Your task to perform on an android device: turn off location history Image 0: 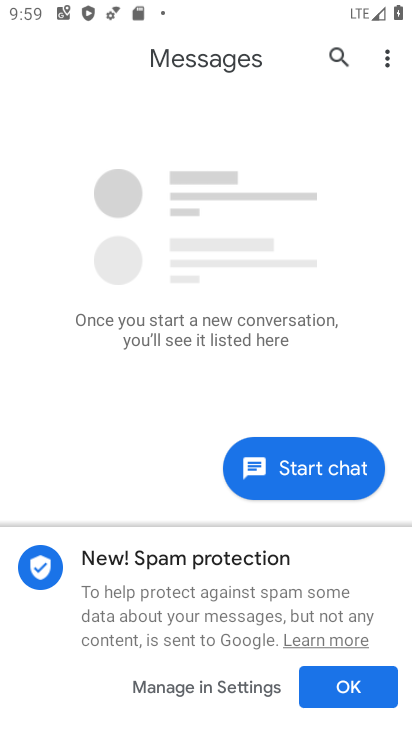
Step 0: press home button
Your task to perform on an android device: turn off location history Image 1: 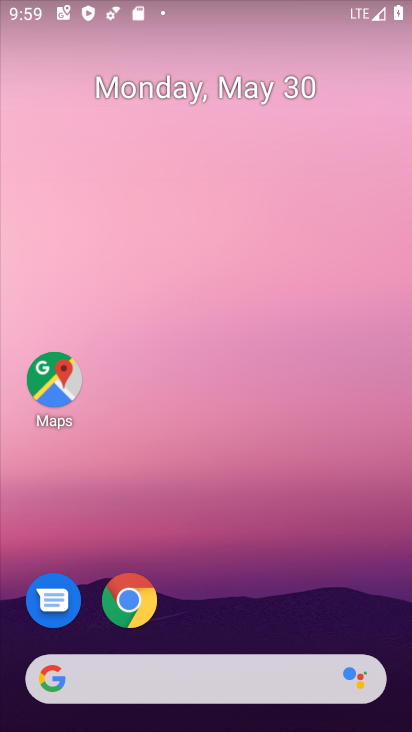
Step 1: drag from (248, 589) to (242, 483)
Your task to perform on an android device: turn off location history Image 2: 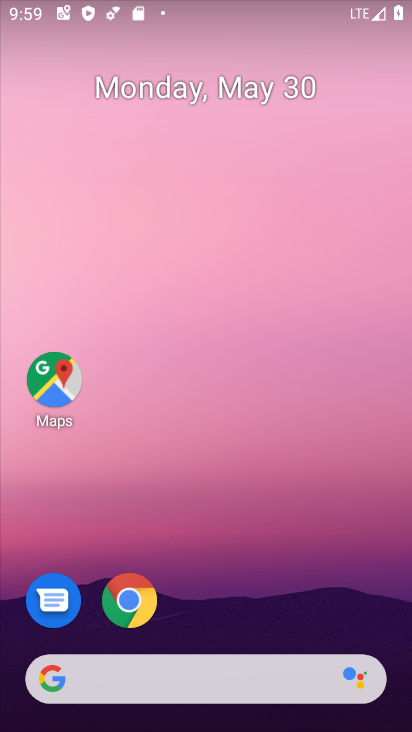
Step 2: drag from (294, 605) to (309, 131)
Your task to perform on an android device: turn off location history Image 3: 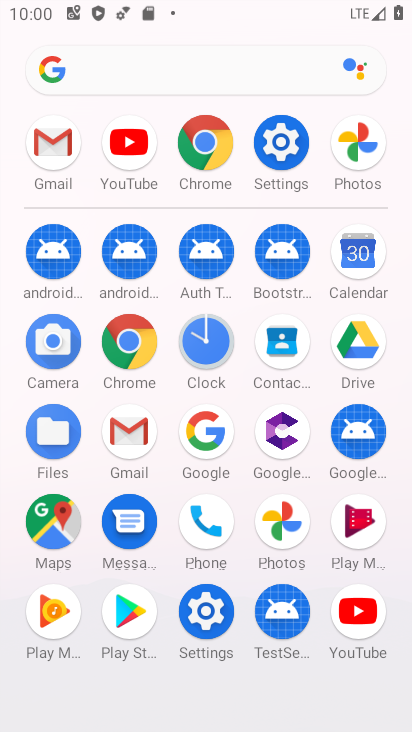
Step 3: click (290, 137)
Your task to perform on an android device: turn off location history Image 4: 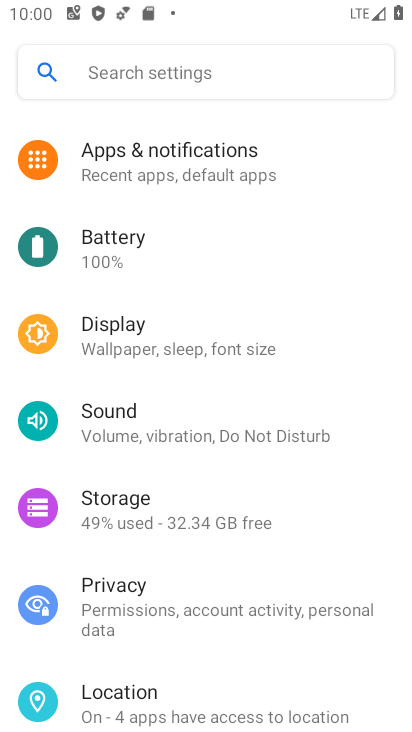
Step 4: click (81, 692)
Your task to perform on an android device: turn off location history Image 5: 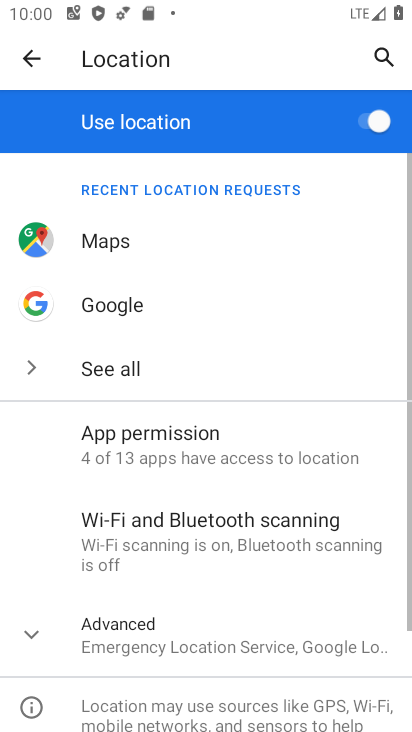
Step 5: drag from (52, 659) to (44, 386)
Your task to perform on an android device: turn off location history Image 6: 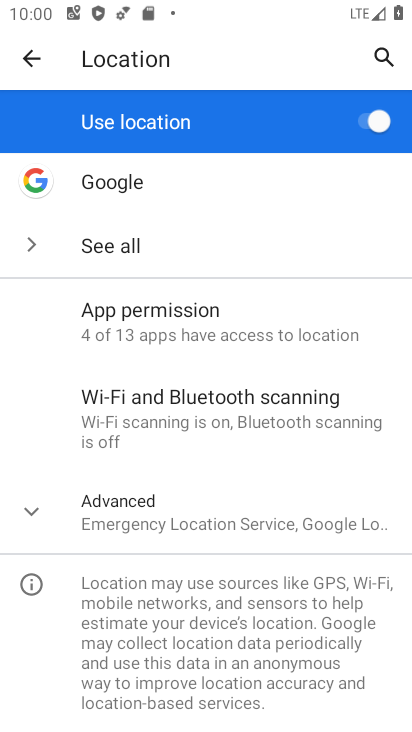
Step 6: click (53, 513)
Your task to perform on an android device: turn off location history Image 7: 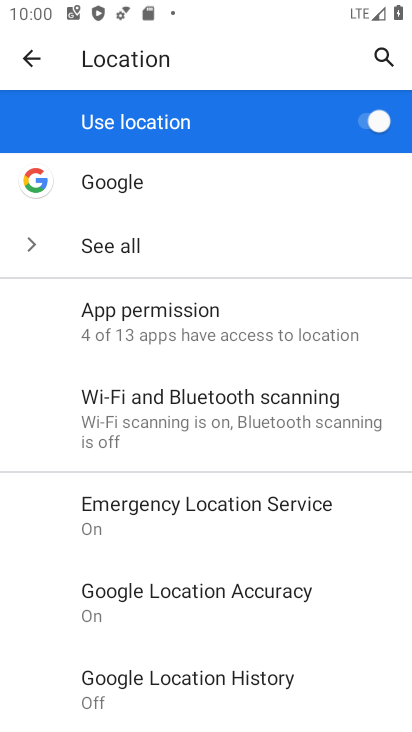
Step 7: click (213, 679)
Your task to perform on an android device: turn off location history Image 8: 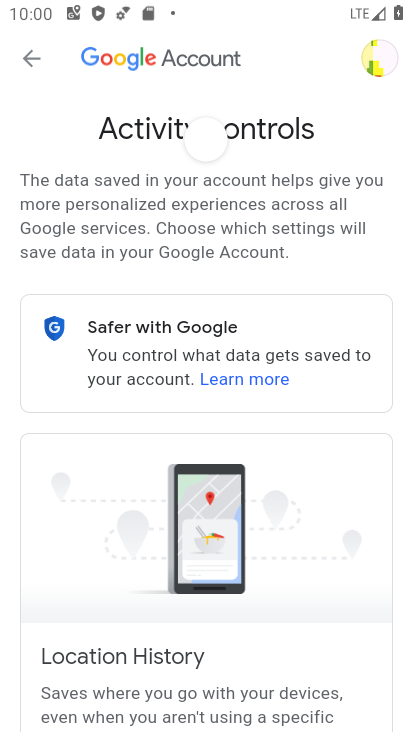
Step 8: task complete